Your task to perform on an android device: Open the calendar and show me this week's events Image 0: 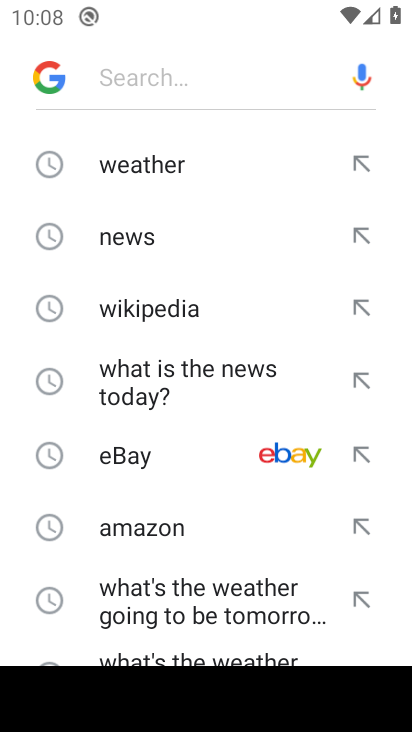
Step 0: press home button
Your task to perform on an android device: Open the calendar and show me this week's events Image 1: 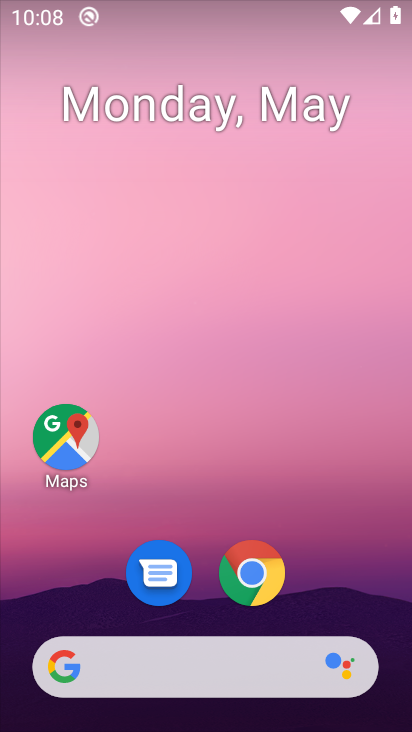
Step 1: drag from (214, 548) to (225, 226)
Your task to perform on an android device: Open the calendar and show me this week's events Image 2: 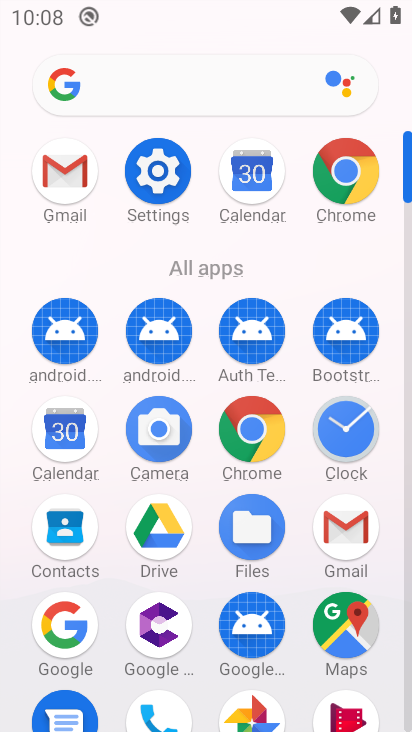
Step 2: click (74, 441)
Your task to perform on an android device: Open the calendar and show me this week's events Image 3: 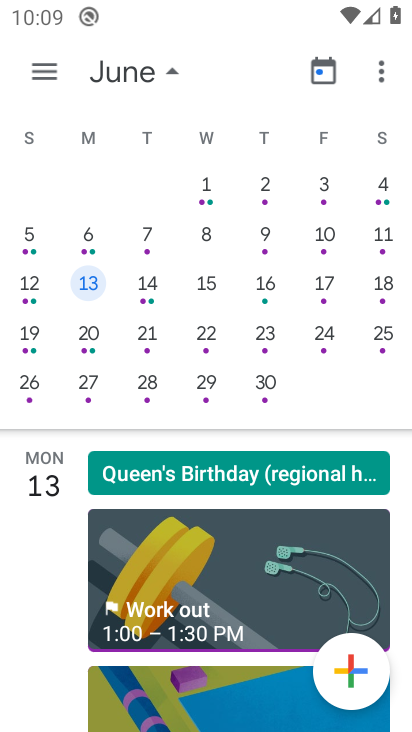
Step 3: drag from (38, 317) to (382, 301)
Your task to perform on an android device: Open the calendar and show me this week's events Image 4: 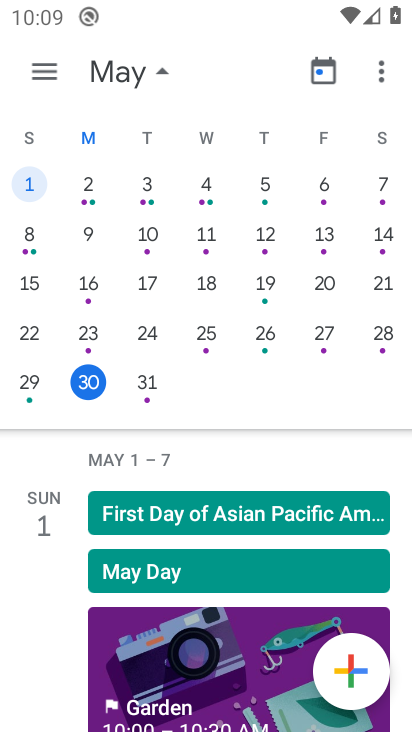
Step 4: click (89, 383)
Your task to perform on an android device: Open the calendar and show me this week's events Image 5: 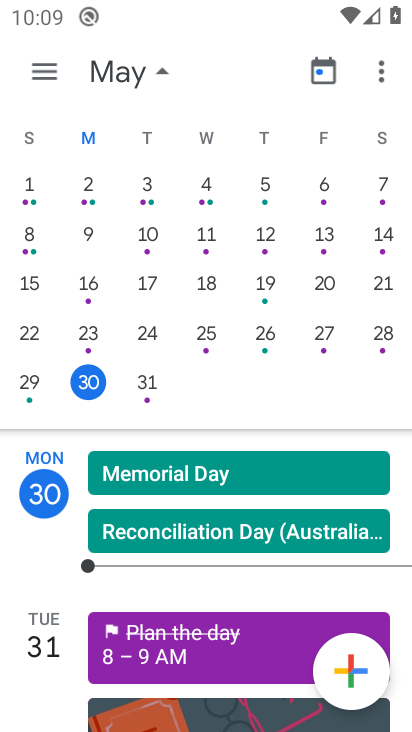
Step 5: drag from (177, 683) to (239, 272)
Your task to perform on an android device: Open the calendar and show me this week's events Image 6: 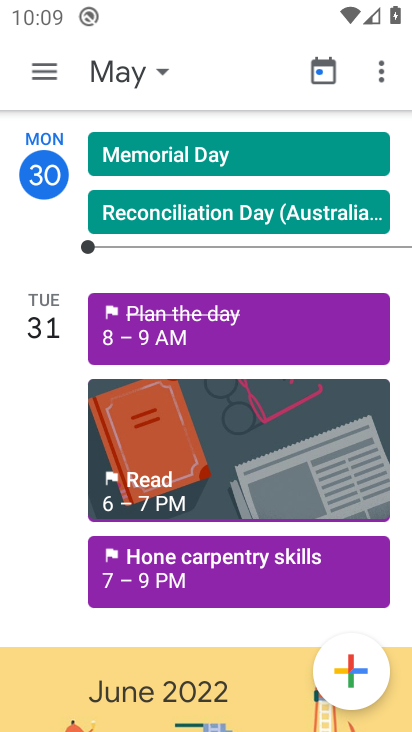
Step 6: click (166, 565)
Your task to perform on an android device: Open the calendar and show me this week's events Image 7: 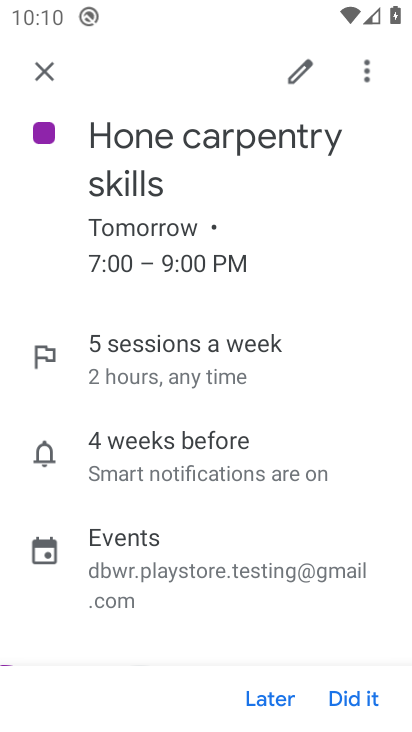
Step 7: task complete